Your task to perform on an android device: Open settings Image 0: 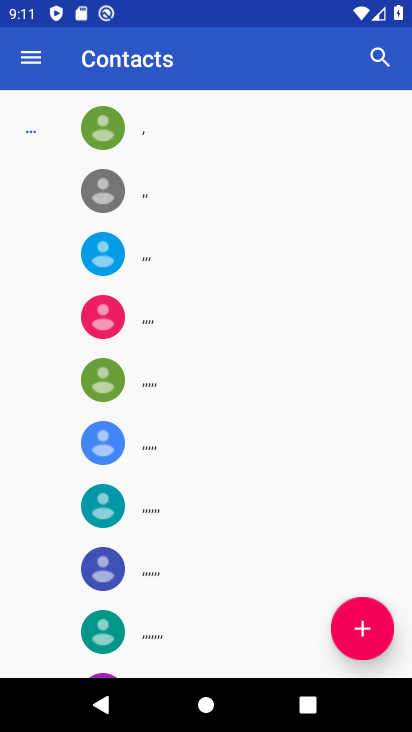
Step 0: press home button
Your task to perform on an android device: Open settings Image 1: 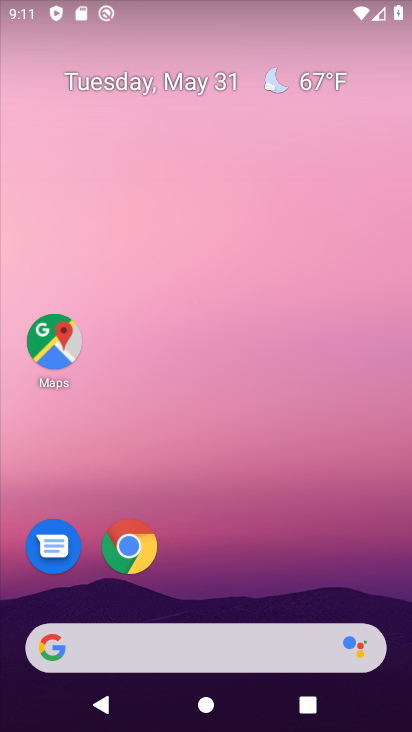
Step 1: drag from (182, 594) to (174, 79)
Your task to perform on an android device: Open settings Image 2: 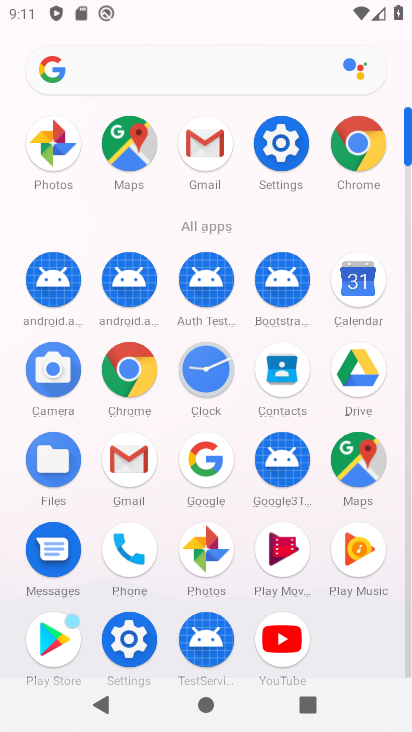
Step 2: click (141, 640)
Your task to perform on an android device: Open settings Image 3: 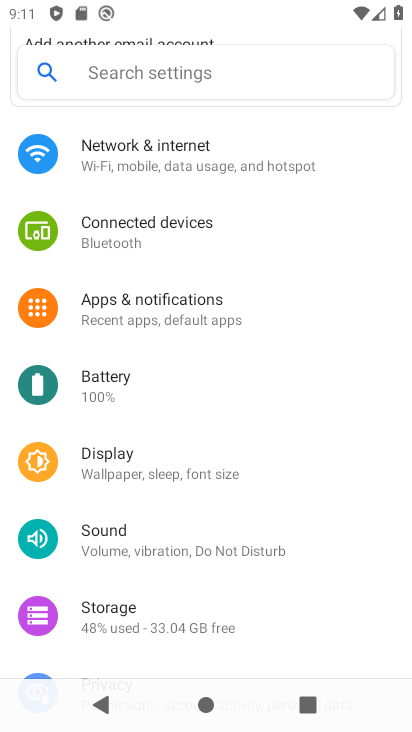
Step 3: task complete